Your task to perform on an android device: change notification settings in the gmail app Image 0: 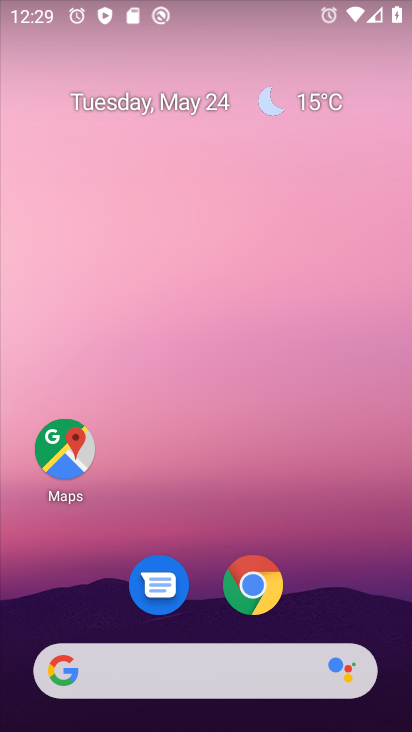
Step 0: drag from (237, 493) to (236, 60)
Your task to perform on an android device: change notification settings in the gmail app Image 1: 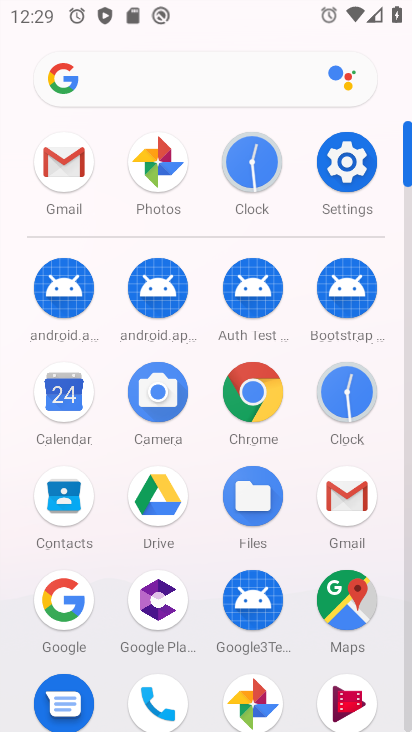
Step 1: click (60, 175)
Your task to perform on an android device: change notification settings in the gmail app Image 2: 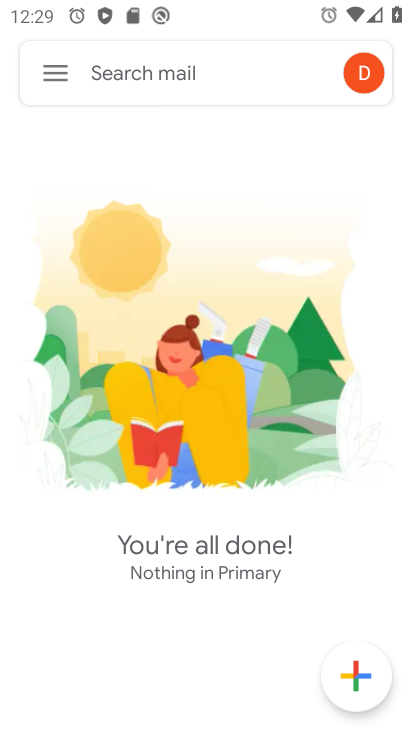
Step 2: click (57, 70)
Your task to perform on an android device: change notification settings in the gmail app Image 3: 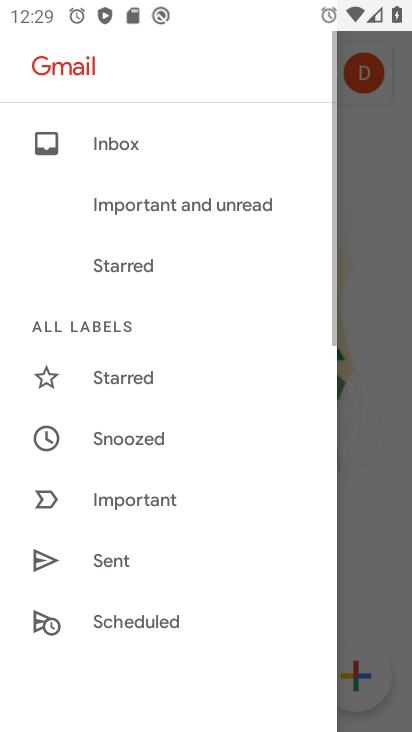
Step 3: drag from (180, 457) to (218, 142)
Your task to perform on an android device: change notification settings in the gmail app Image 4: 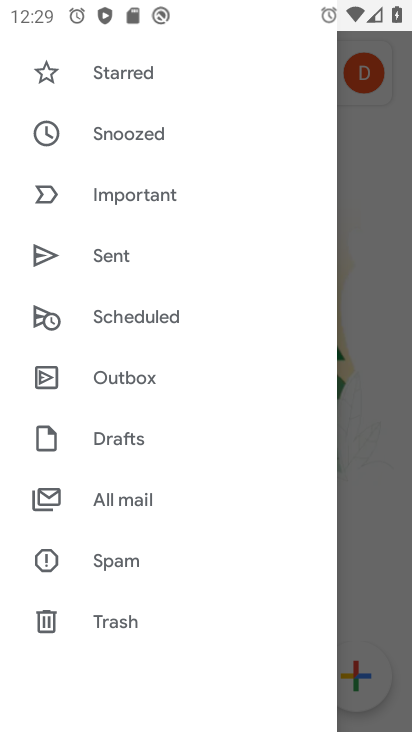
Step 4: drag from (184, 532) to (203, 127)
Your task to perform on an android device: change notification settings in the gmail app Image 5: 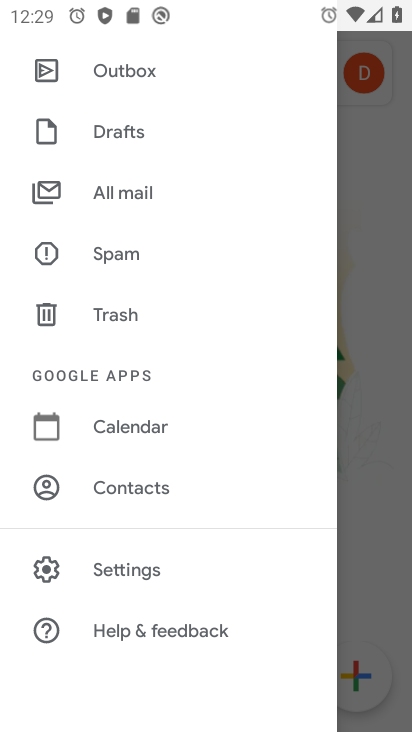
Step 5: click (121, 566)
Your task to perform on an android device: change notification settings in the gmail app Image 6: 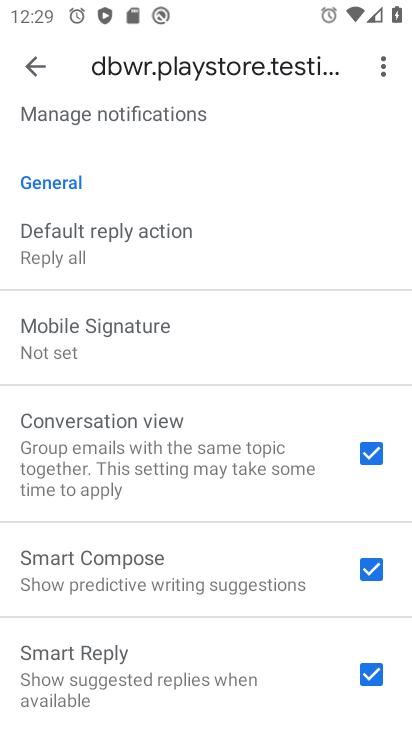
Step 6: drag from (217, 514) to (266, 98)
Your task to perform on an android device: change notification settings in the gmail app Image 7: 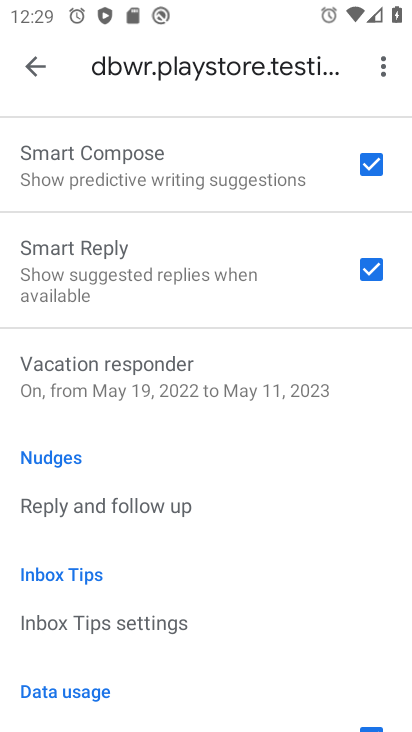
Step 7: drag from (222, 525) to (226, 649)
Your task to perform on an android device: change notification settings in the gmail app Image 8: 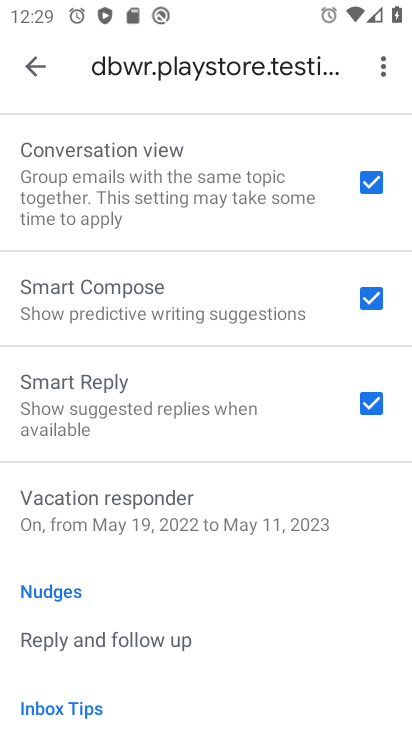
Step 8: drag from (229, 259) to (191, 707)
Your task to perform on an android device: change notification settings in the gmail app Image 9: 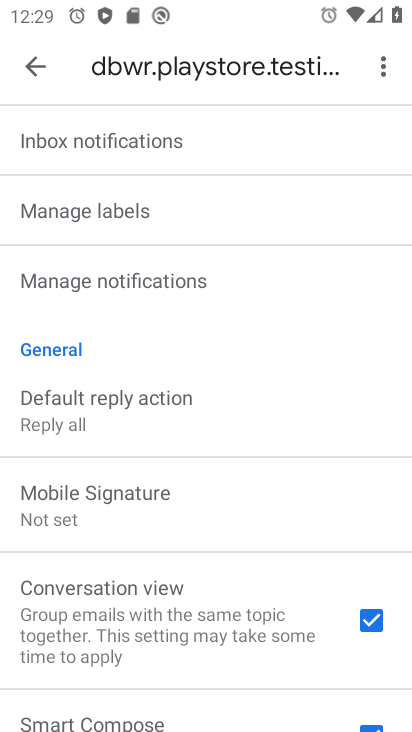
Step 9: click (222, 294)
Your task to perform on an android device: change notification settings in the gmail app Image 10: 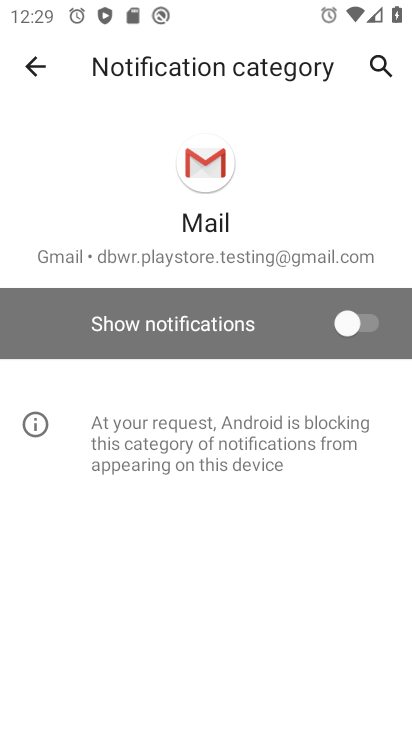
Step 10: click (360, 317)
Your task to perform on an android device: change notification settings in the gmail app Image 11: 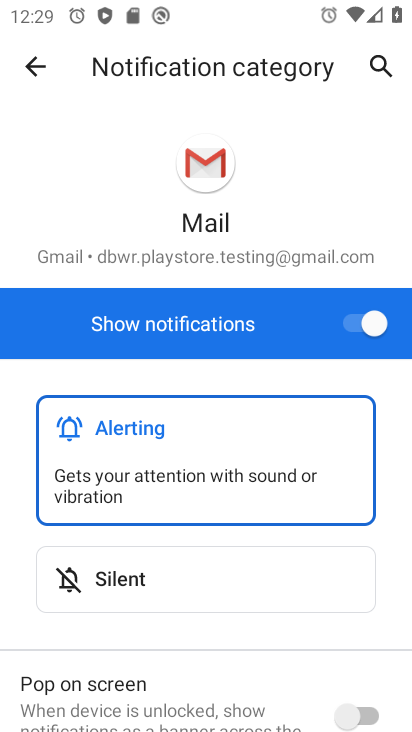
Step 11: task complete